Your task to perform on an android device: Open settings Image 0: 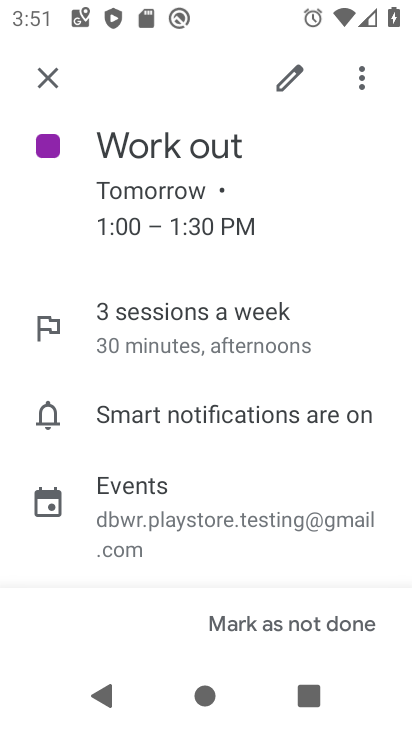
Step 0: press home button
Your task to perform on an android device: Open settings Image 1: 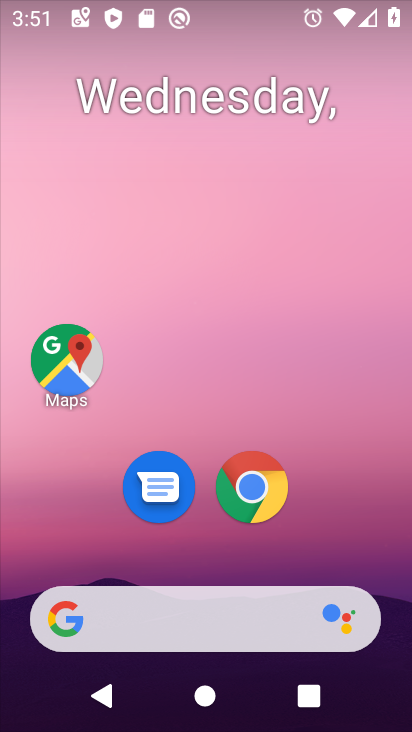
Step 1: drag from (364, 553) to (346, 108)
Your task to perform on an android device: Open settings Image 2: 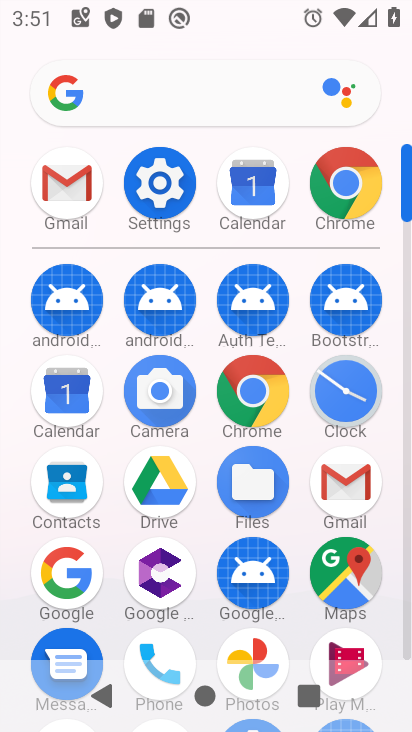
Step 2: click (178, 199)
Your task to perform on an android device: Open settings Image 3: 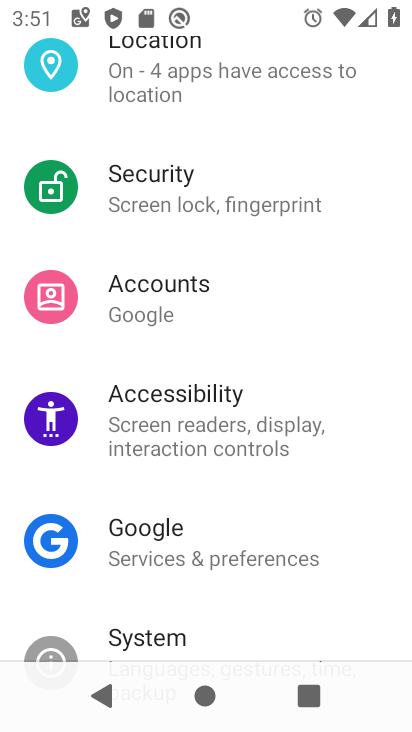
Step 3: task complete